Your task to perform on an android device: Is it going to rain this weekend? Image 0: 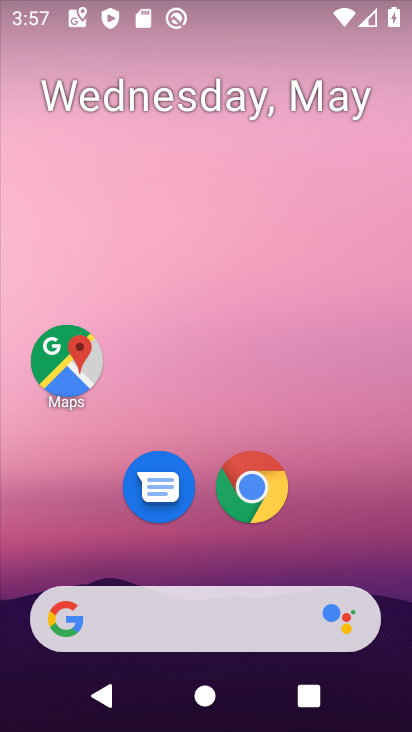
Step 0: drag from (341, 523) to (217, 27)
Your task to perform on an android device: Is it going to rain this weekend? Image 1: 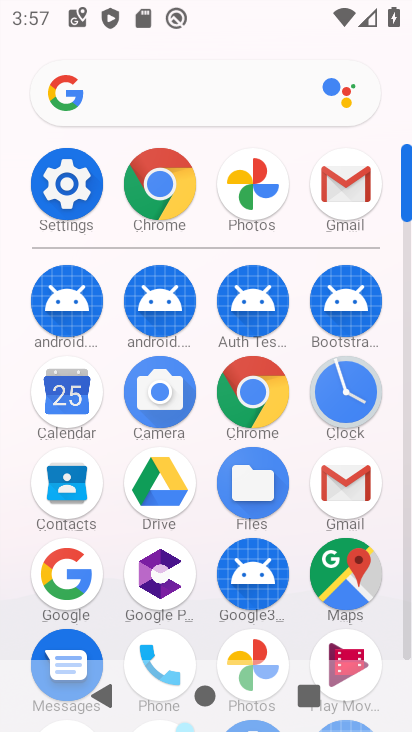
Step 1: drag from (5, 540) to (5, 210)
Your task to perform on an android device: Is it going to rain this weekend? Image 2: 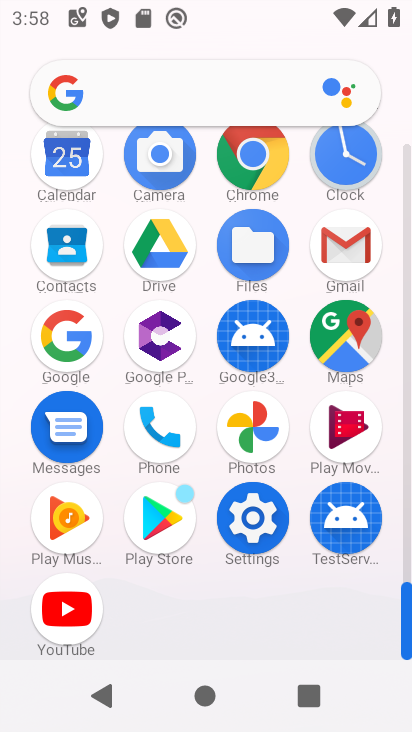
Step 2: drag from (9, 509) to (0, 232)
Your task to perform on an android device: Is it going to rain this weekend? Image 3: 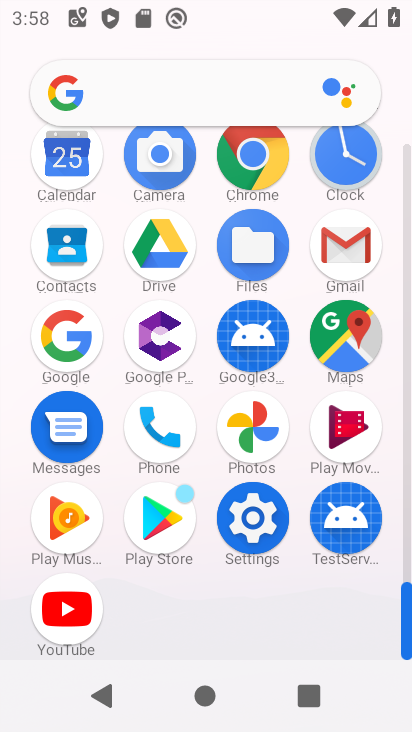
Step 3: click (253, 154)
Your task to perform on an android device: Is it going to rain this weekend? Image 4: 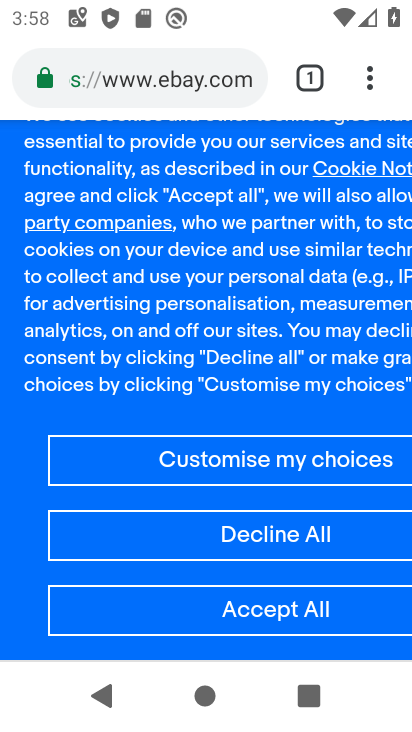
Step 4: click (172, 87)
Your task to perform on an android device: Is it going to rain this weekend? Image 5: 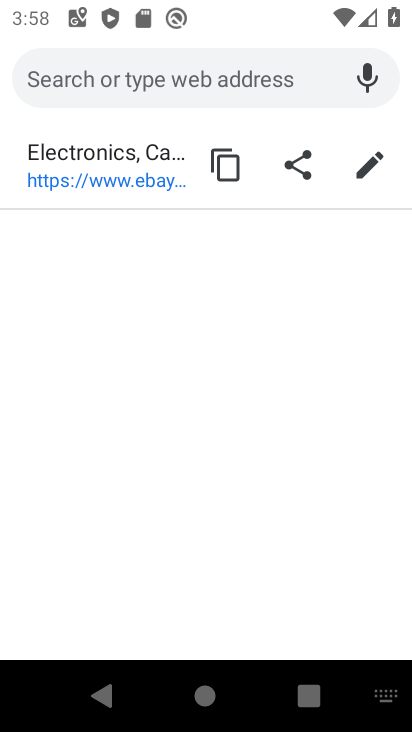
Step 5: type "Is it going to rain this weekend?"
Your task to perform on an android device: Is it going to rain this weekend? Image 6: 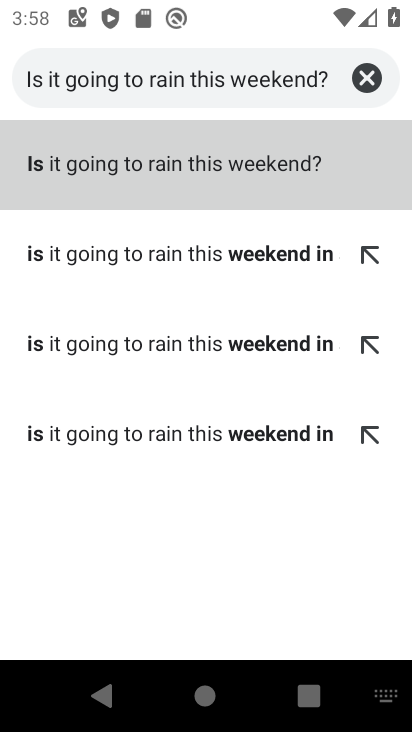
Step 6: click (162, 175)
Your task to perform on an android device: Is it going to rain this weekend? Image 7: 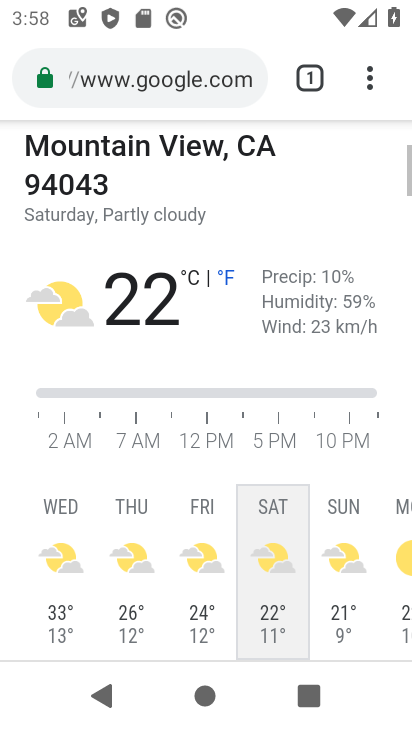
Step 7: task complete